Your task to perform on an android device: allow notifications from all sites in the chrome app Image 0: 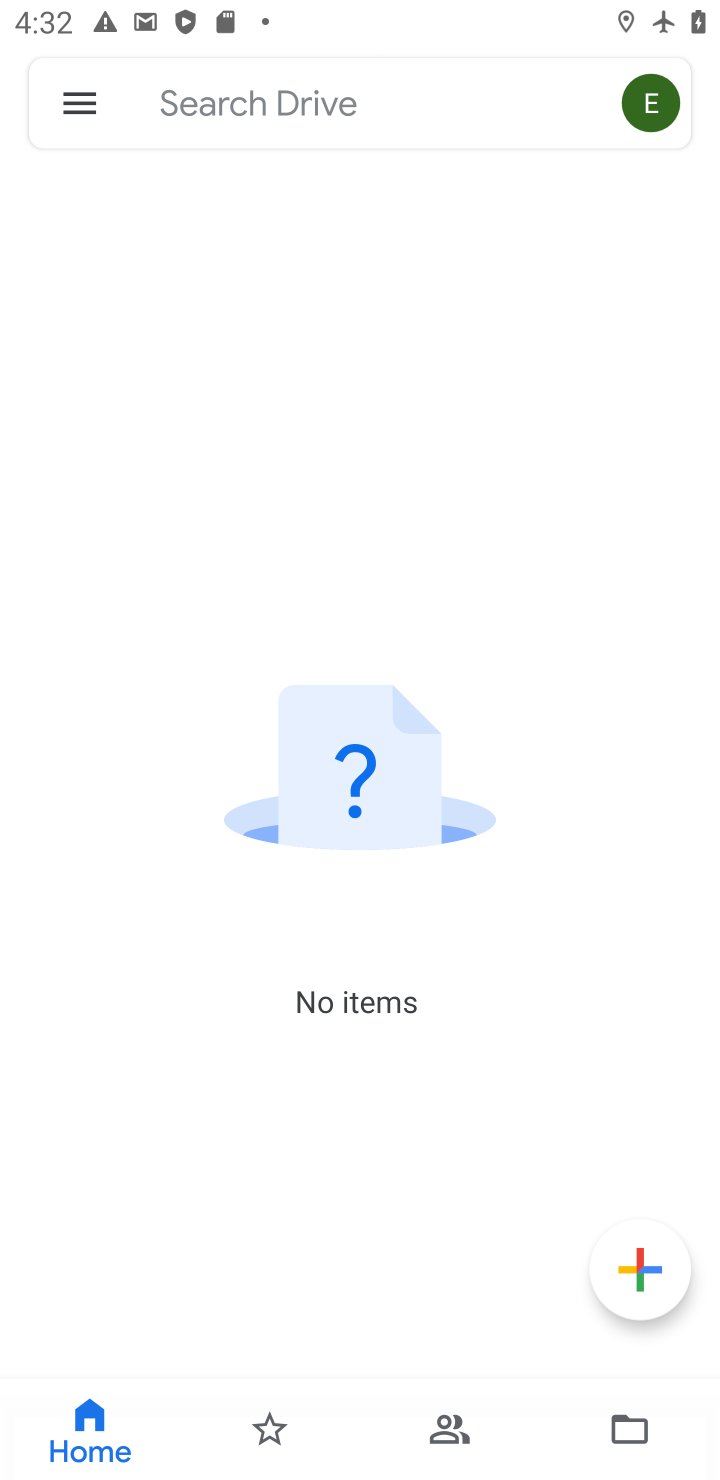
Step 0: press home button
Your task to perform on an android device: allow notifications from all sites in the chrome app Image 1: 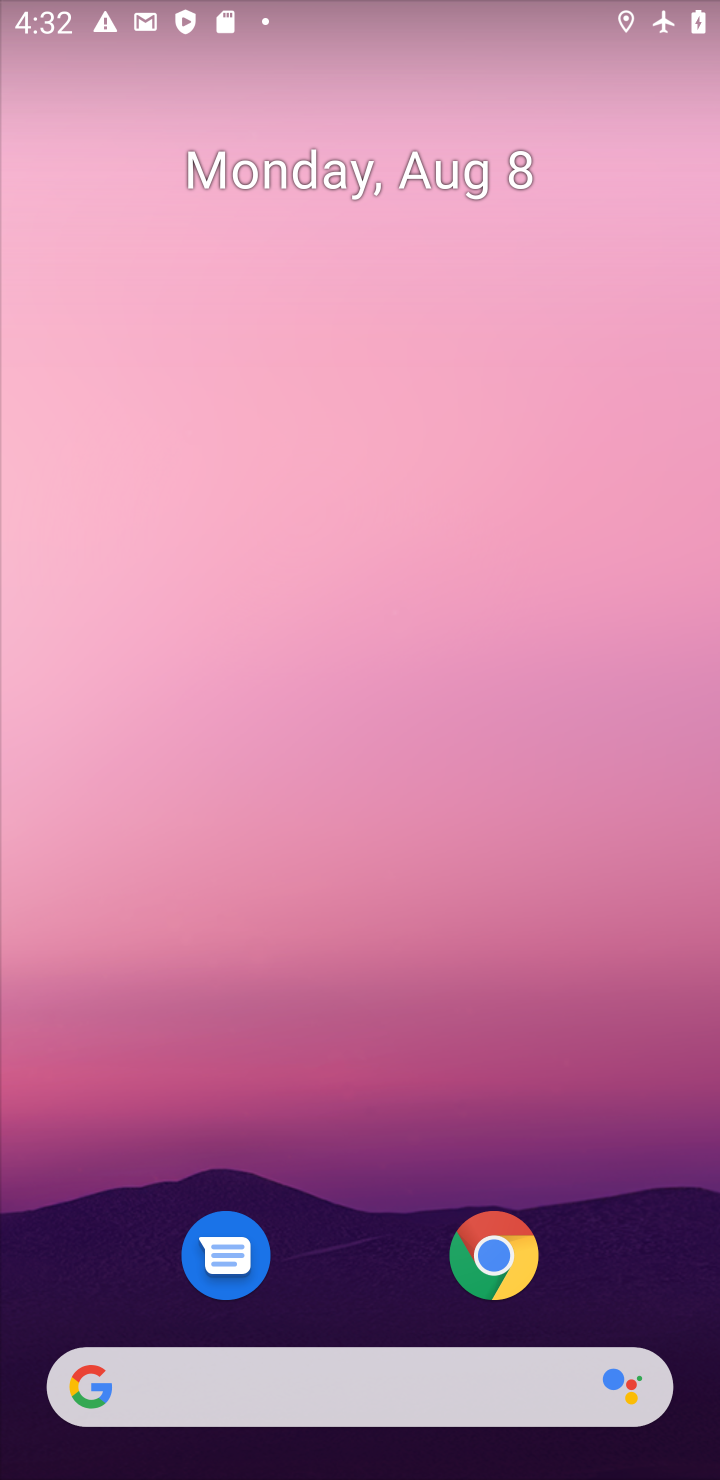
Step 1: click (497, 1259)
Your task to perform on an android device: allow notifications from all sites in the chrome app Image 2: 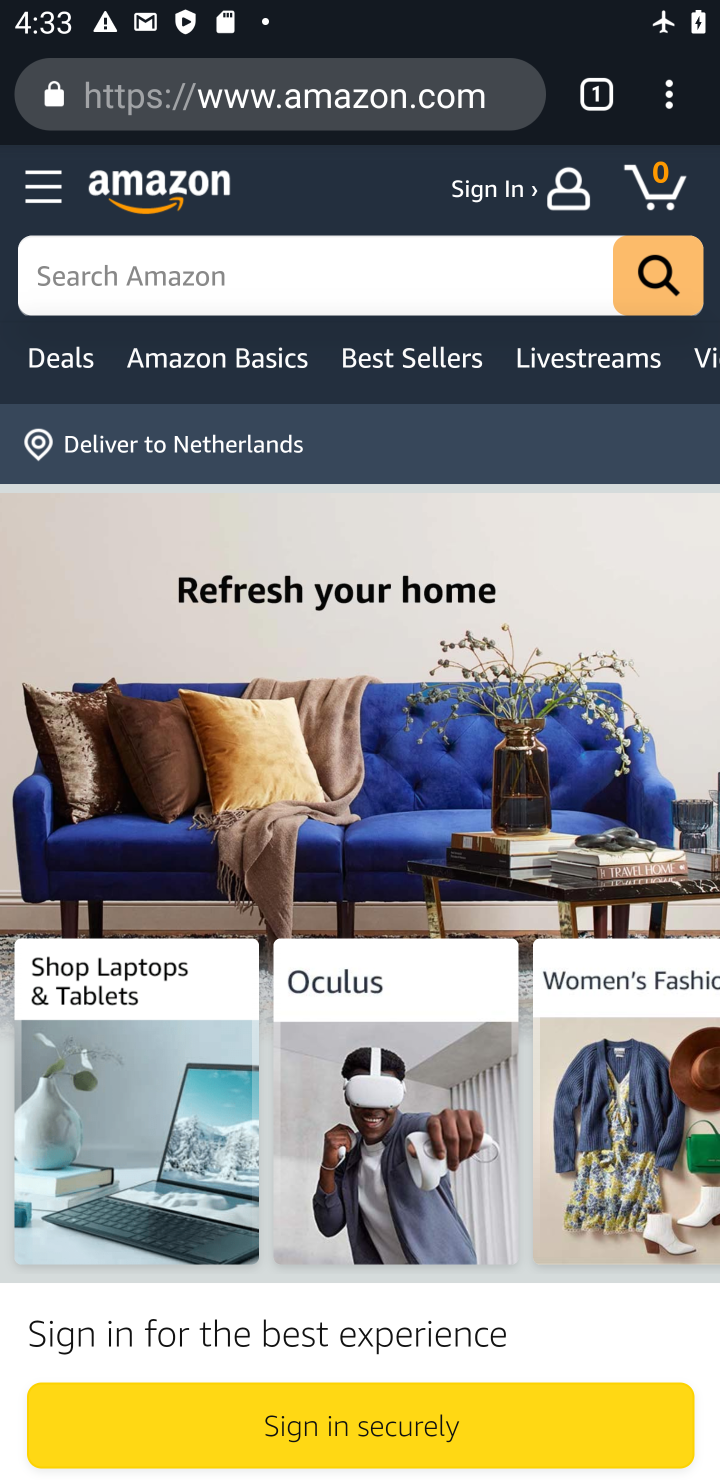
Step 2: click (674, 97)
Your task to perform on an android device: allow notifications from all sites in the chrome app Image 3: 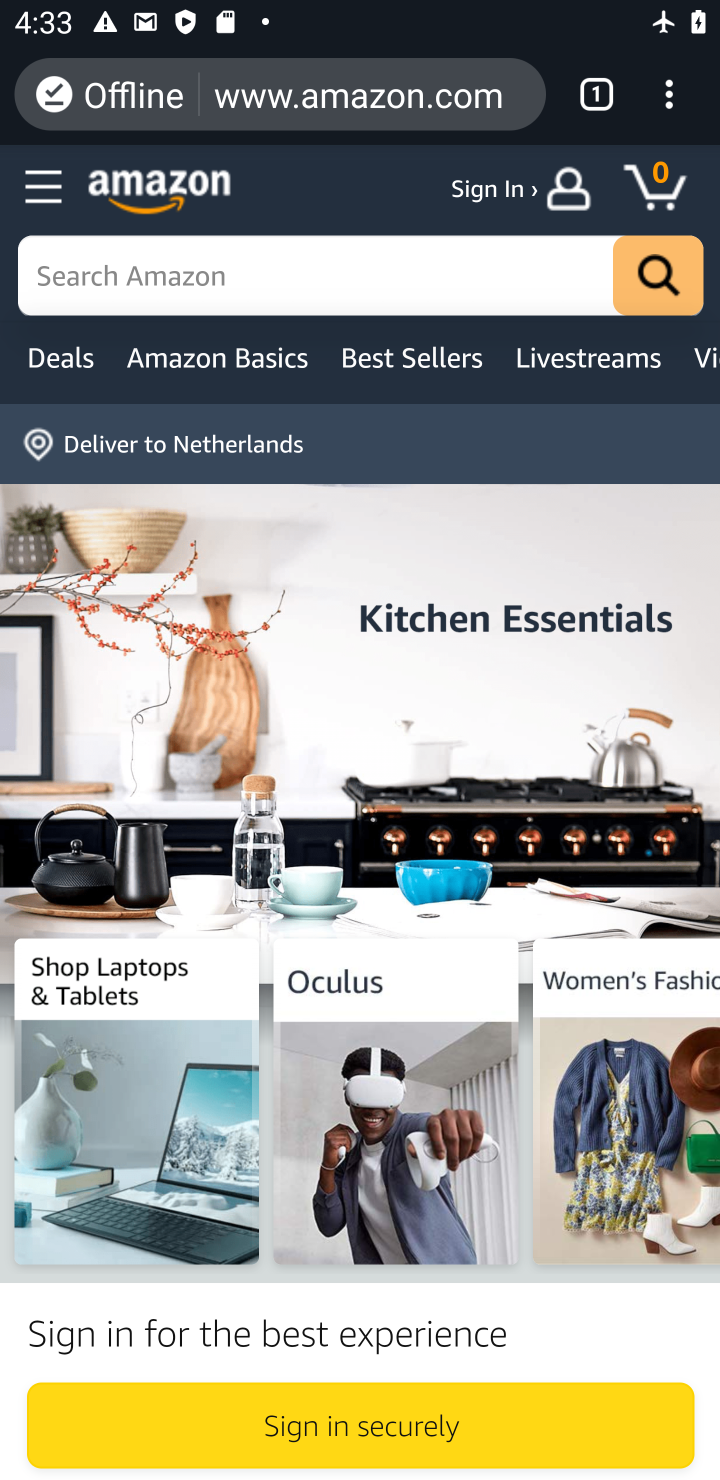
Step 3: drag from (674, 97) to (386, 1016)
Your task to perform on an android device: allow notifications from all sites in the chrome app Image 4: 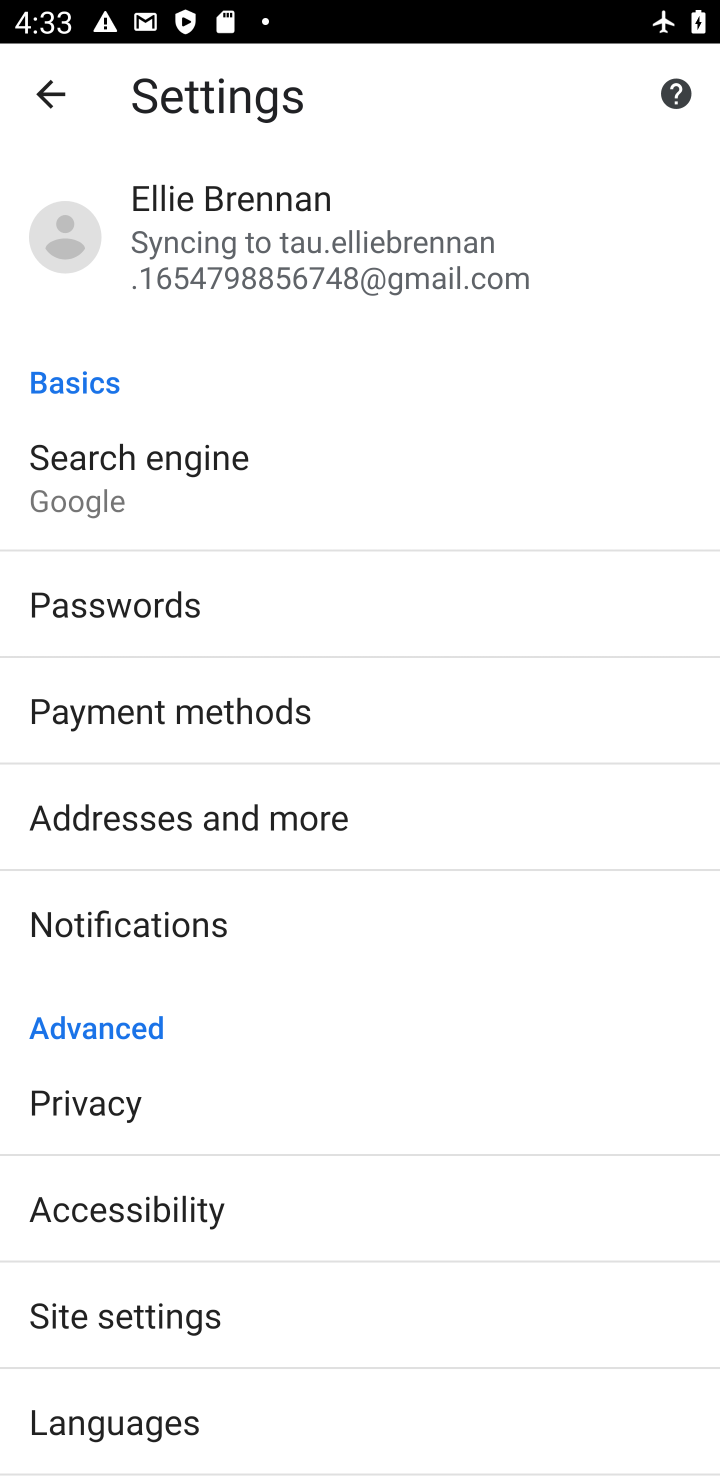
Step 4: drag from (296, 1027) to (370, 685)
Your task to perform on an android device: allow notifications from all sites in the chrome app Image 5: 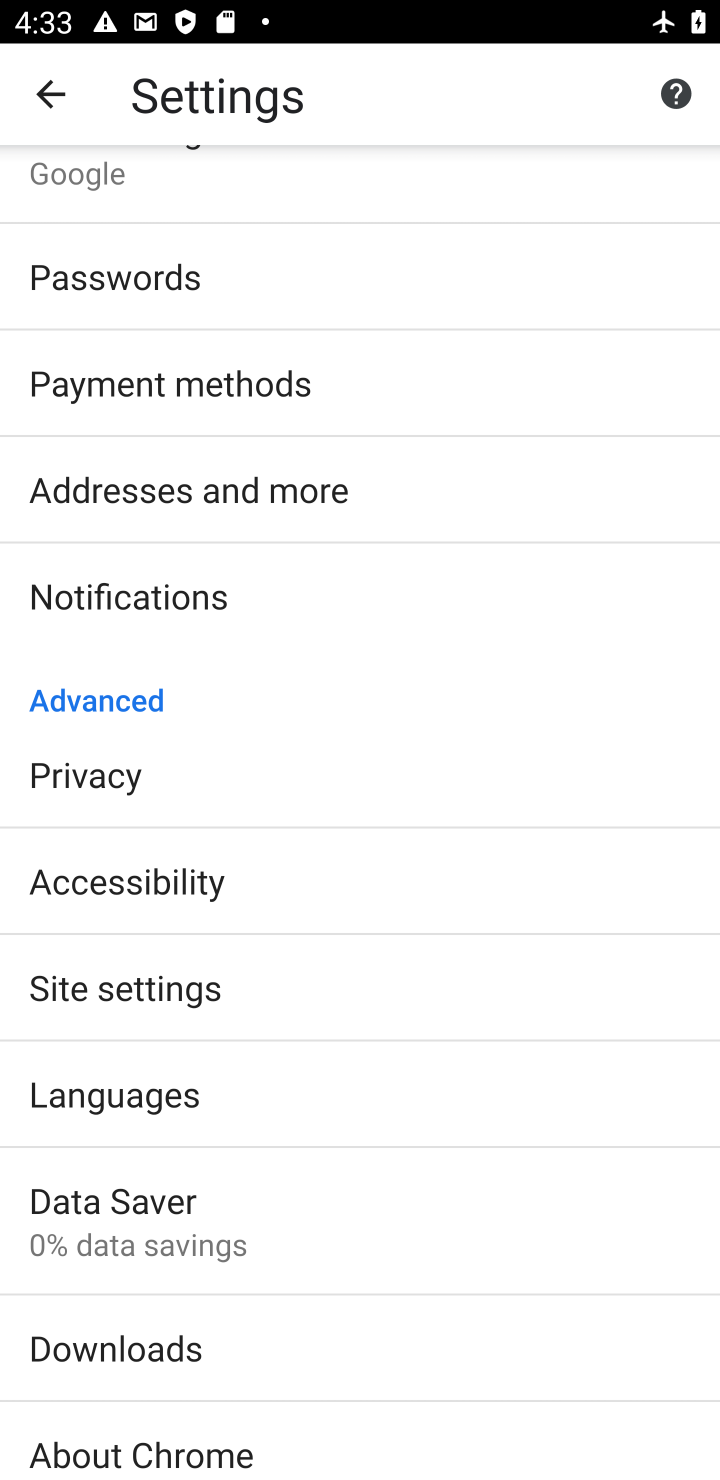
Step 5: click (129, 614)
Your task to perform on an android device: allow notifications from all sites in the chrome app Image 6: 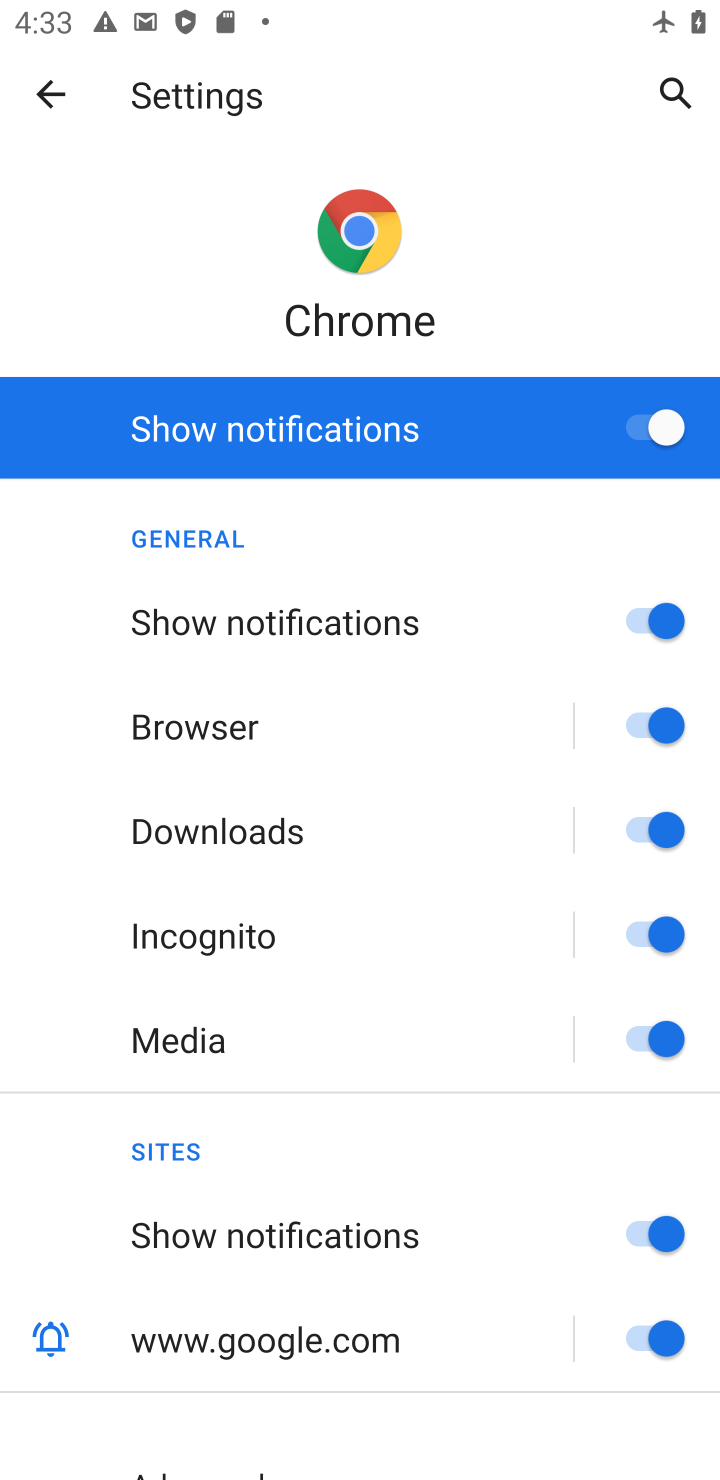
Step 6: task complete